Your task to perform on an android device: Show me popular videos on Youtube Image 0: 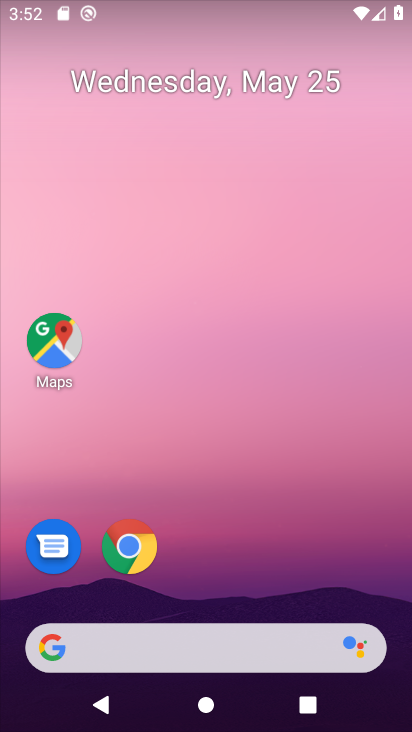
Step 0: drag from (241, 592) to (230, 195)
Your task to perform on an android device: Show me popular videos on Youtube Image 1: 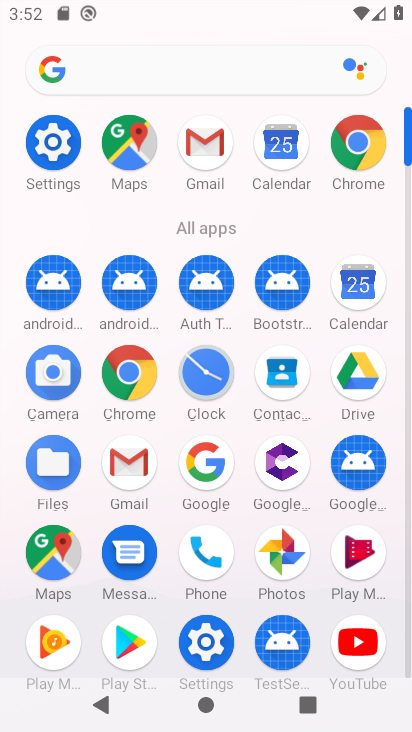
Step 1: click (361, 626)
Your task to perform on an android device: Show me popular videos on Youtube Image 2: 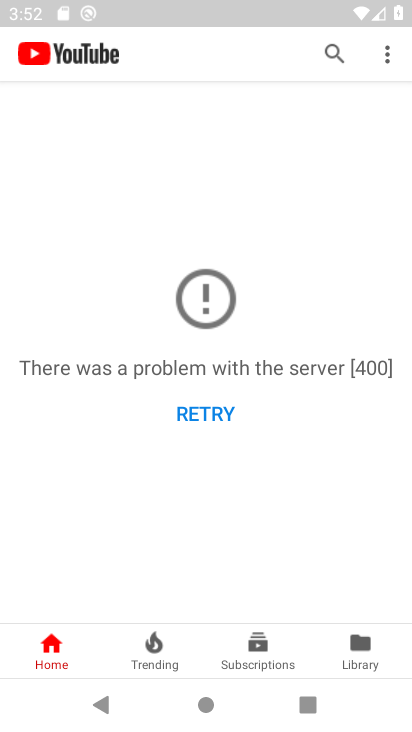
Step 2: click (161, 637)
Your task to perform on an android device: Show me popular videos on Youtube Image 3: 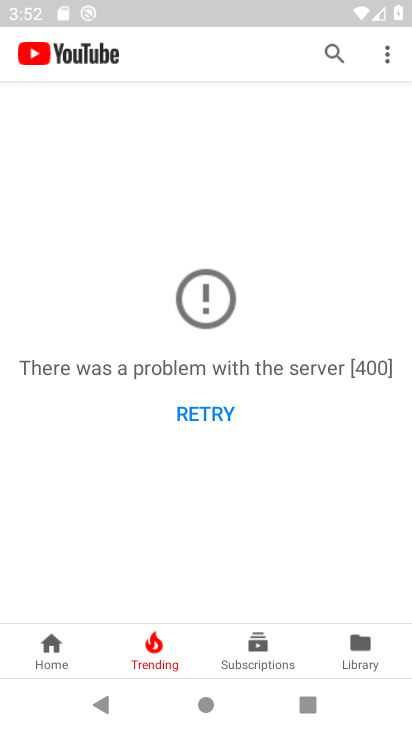
Step 3: click (273, 656)
Your task to perform on an android device: Show me popular videos on Youtube Image 4: 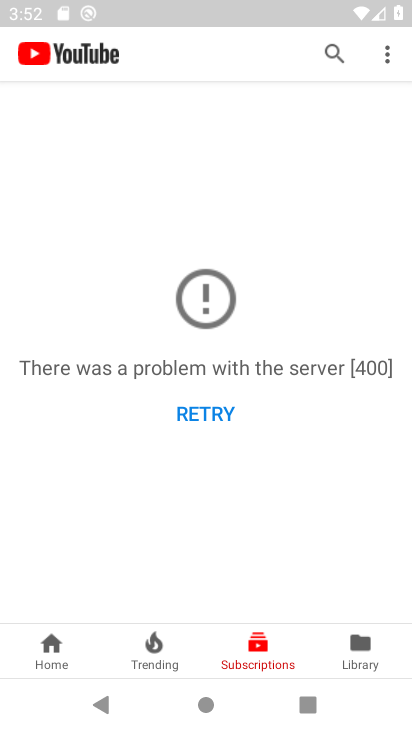
Step 4: click (367, 662)
Your task to perform on an android device: Show me popular videos on Youtube Image 5: 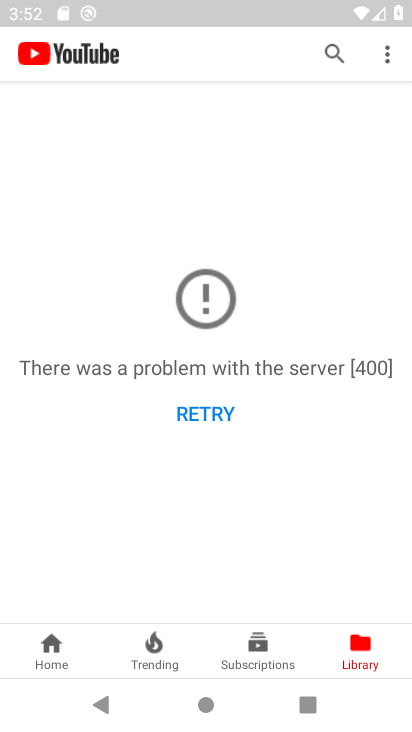
Step 5: task complete